Your task to perform on an android device: Go to eBay Image 0: 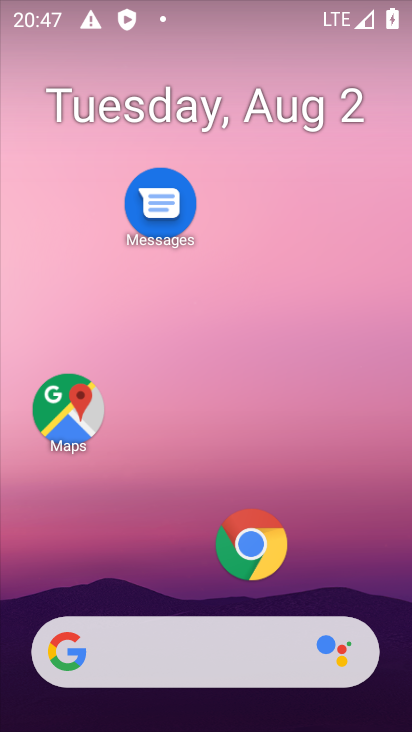
Step 0: click (231, 554)
Your task to perform on an android device: Go to eBay Image 1: 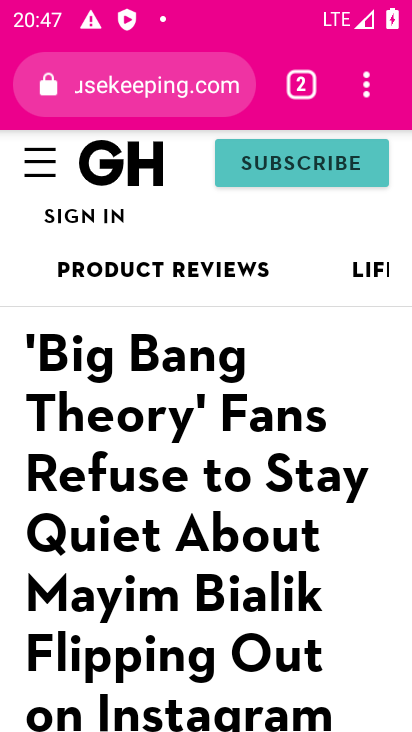
Step 1: click (316, 81)
Your task to perform on an android device: Go to eBay Image 2: 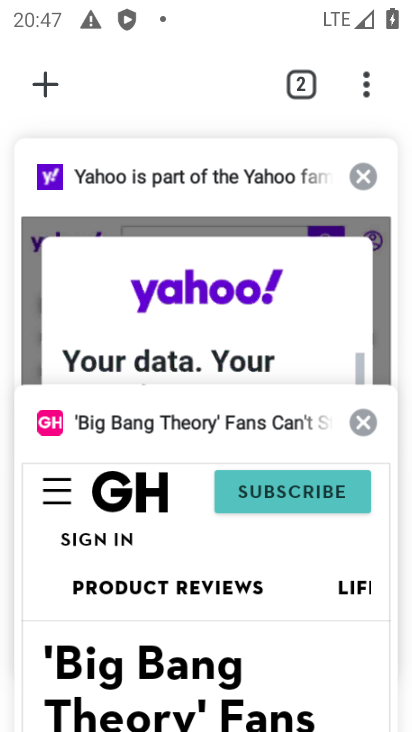
Step 2: click (45, 68)
Your task to perform on an android device: Go to eBay Image 3: 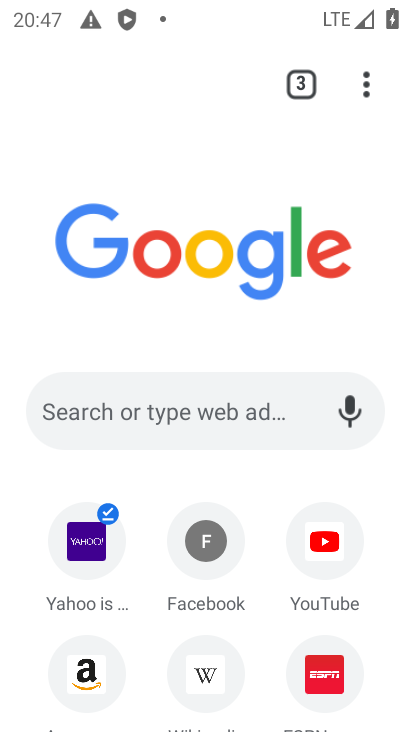
Step 3: drag from (139, 560) to (177, 150)
Your task to perform on an android device: Go to eBay Image 4: 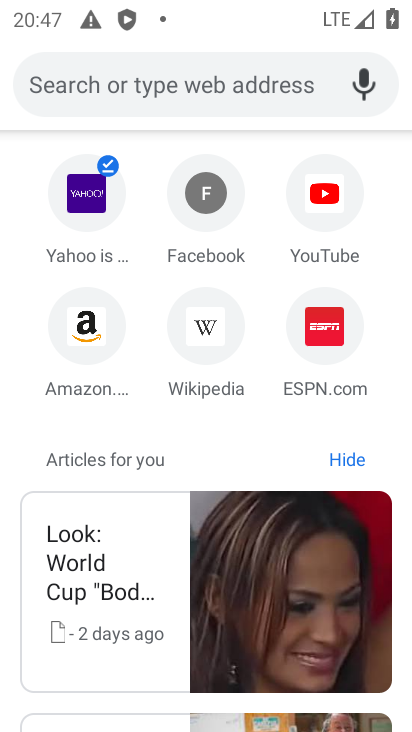
Step 4: click (146, 96)
Your task to perform on an android device: Go to eBay Image 5: 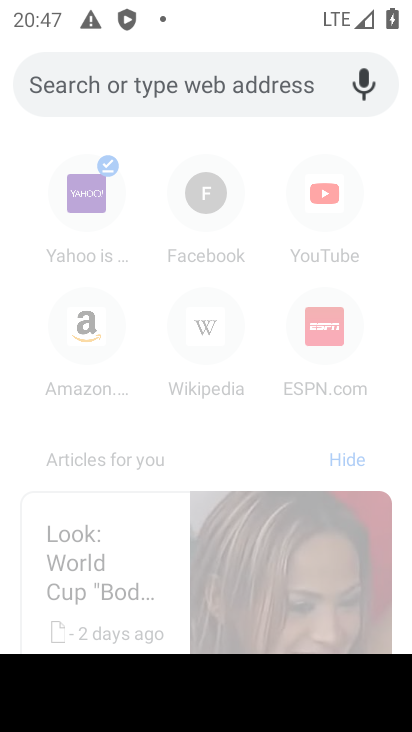
Step 5: type "eBay"
Your task to perform on an android device: Go to eBay Image 6: 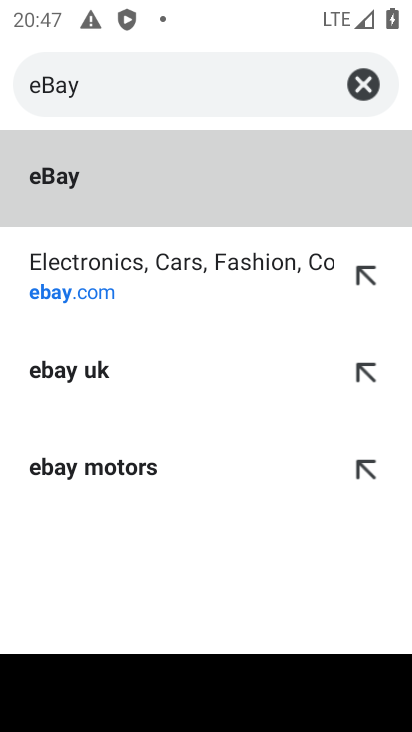
Step 6: click (164, 181)
Your task to perform on an android device: Go to eBay Image 7: 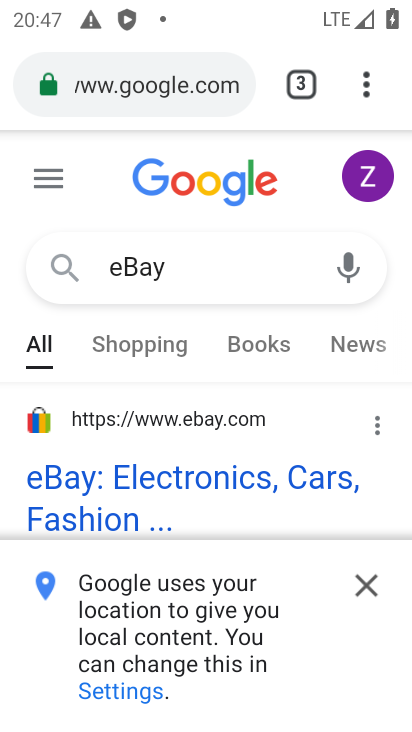
Step 7: drag from (185, 474) to (221, 202)
Your task to perform on an android device: Go to eBay Image 8: 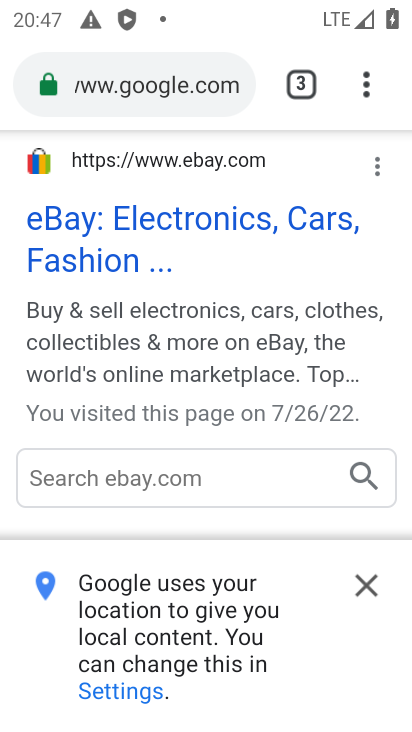
Step 8: click (117, 230)
Your task to perform on an android device: Go to eBay Image 9: 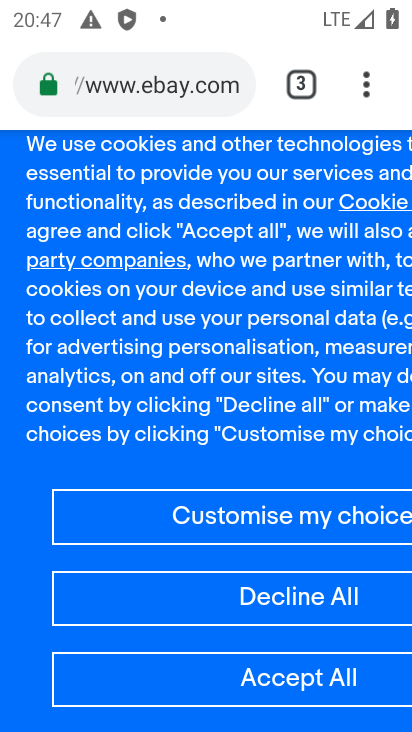
Step 9: task complete